Your task to perform on an android device: Is it going to rain this weekend? Image 0: 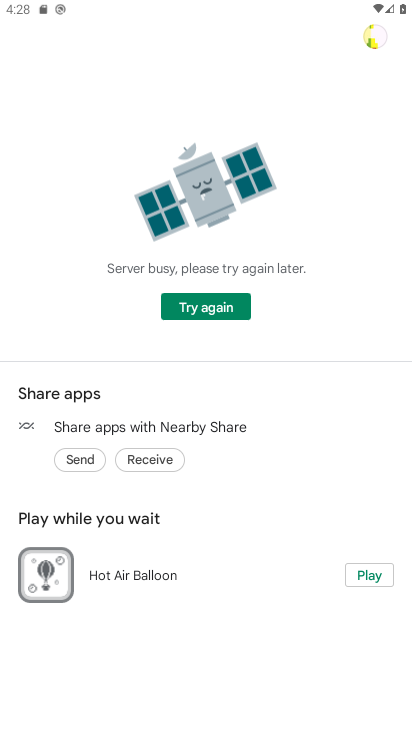
Step 0: press home button
Your task to perform on an android device: Is it going to rain this weekend? Image 1: 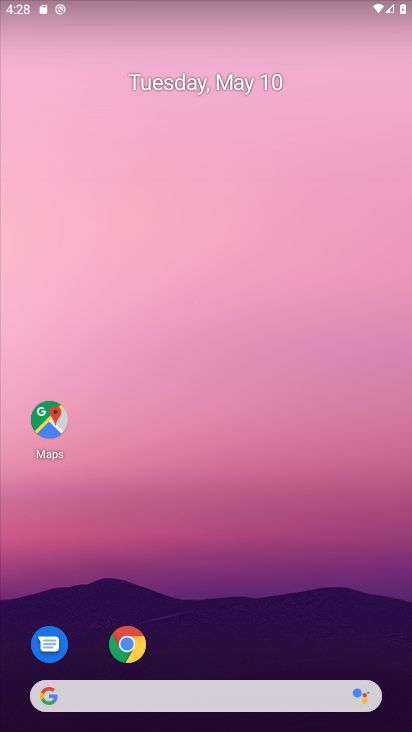
Step 1: click (138, 693)
Your task to perform on an android device: Is it going to rain this weekend? Image 2: 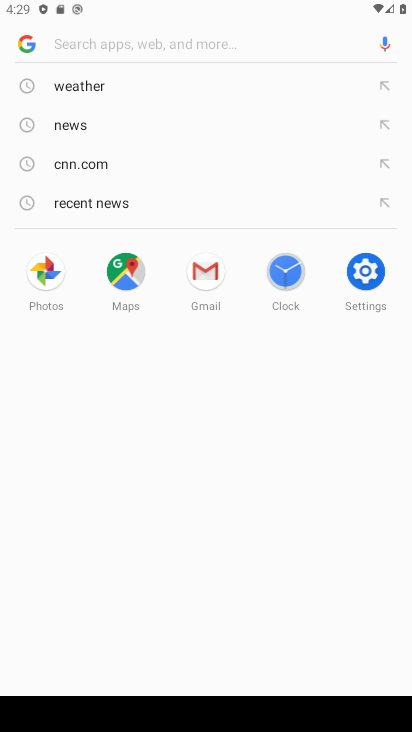
Step 2: type "is it going to rain this weekend"
Your task to perform on an android device: Is it going to rain this weekend? Image 3: 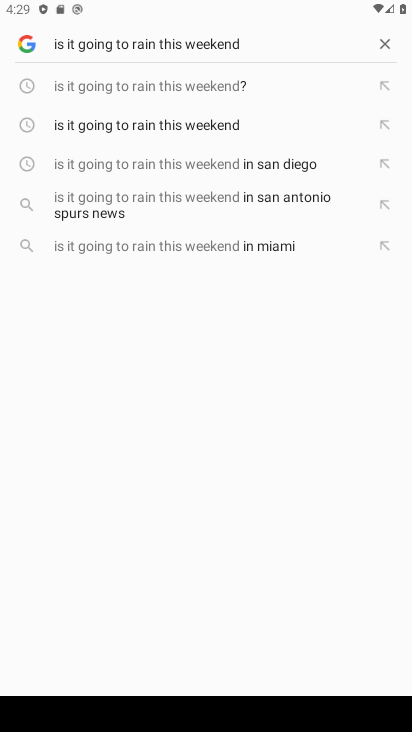
Step 3: click (223, 88)
Your task to perform on an android device: Is it going to rain this weekend? Image 4: 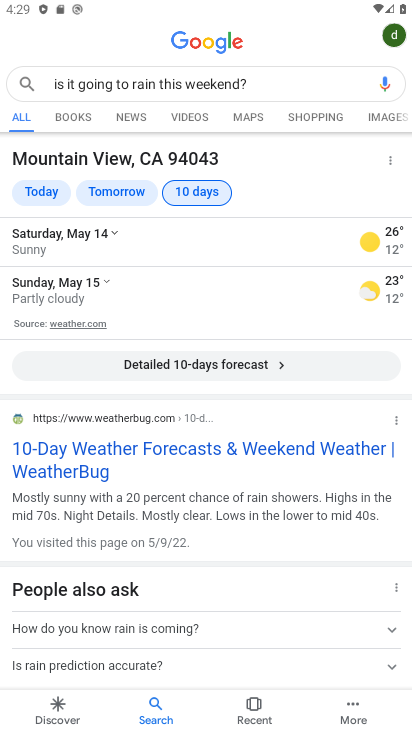
Step 4: task complete